Your task to perform on an android device: Open calendar and show me the second week of next month Image 0: 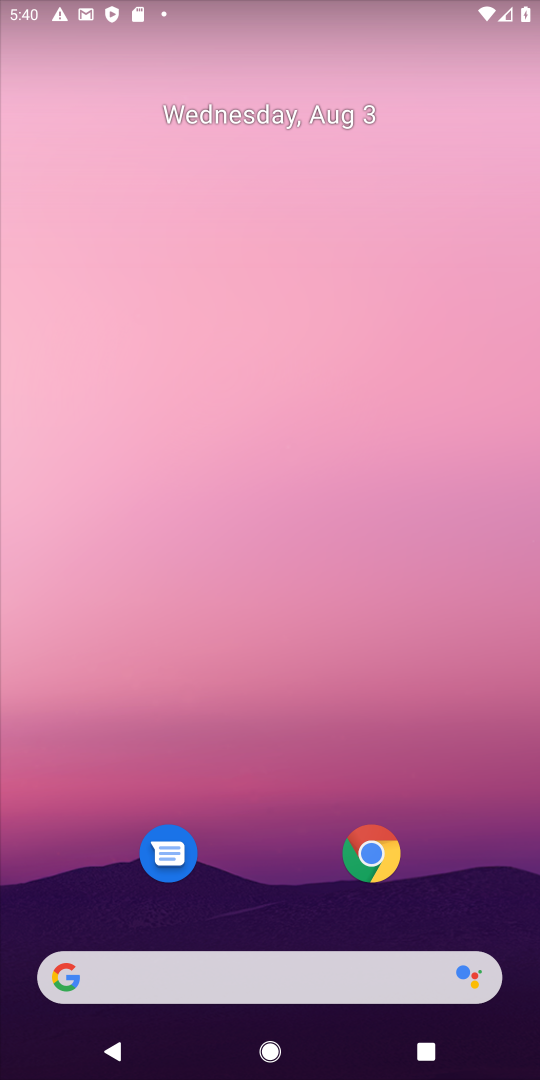
Step 0: drag from (290, 711) to (327, 49)
Your task to perform on an android device: Open calendar and show me the second week of next month Image 1: 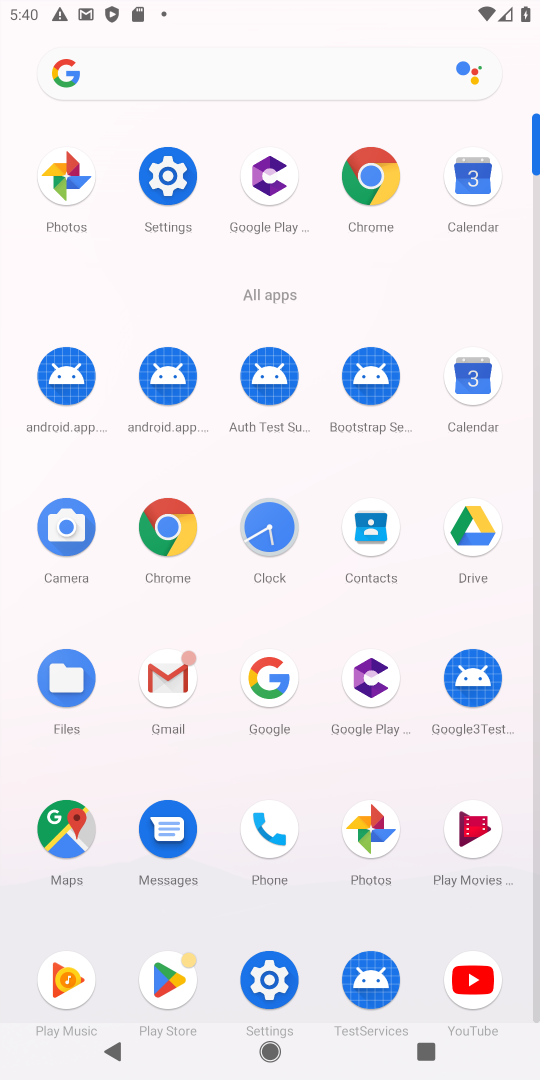
Step 1: click (463, 397)
Your task to perform on an android device: Open calendar and show me the second week of next month Image 2: 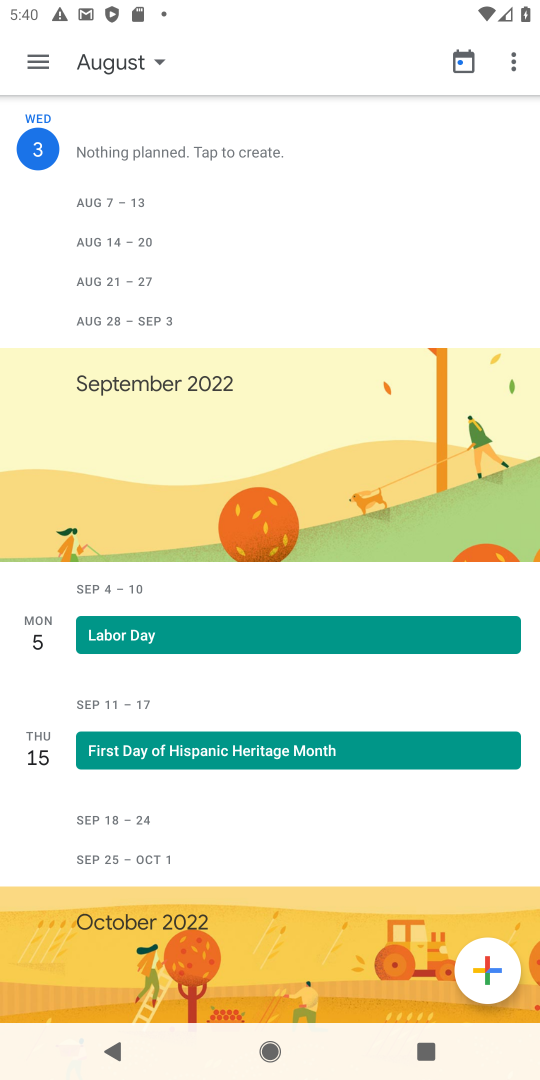
Step 2: click (34, 74)
Your task to perform on an android device: Open calendar and show me the second week of next month Image 3: 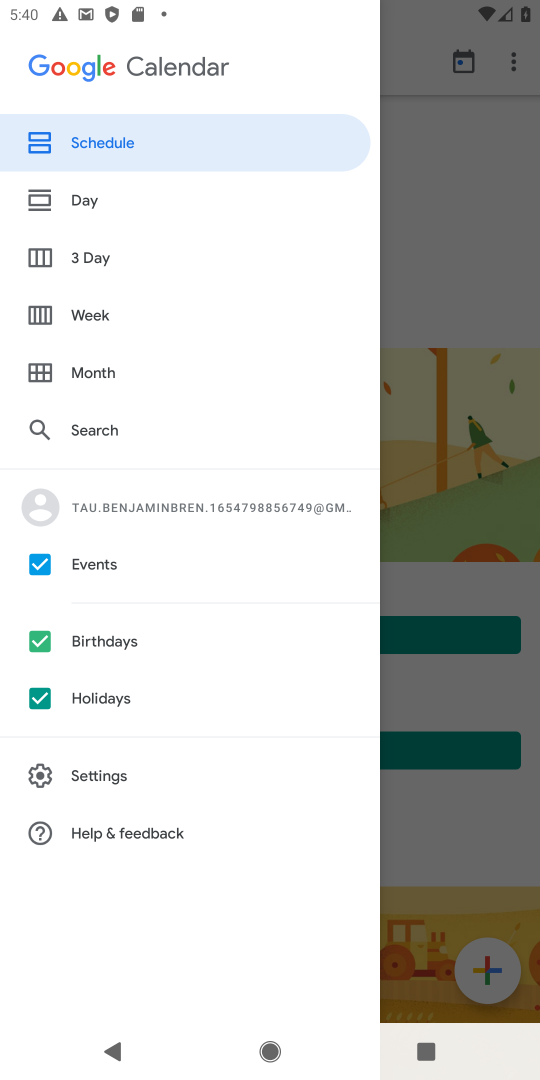
Step 3: click (73, 311)
Your task to perform on an android device: Open calendar and show me the second week of next month Image 4: 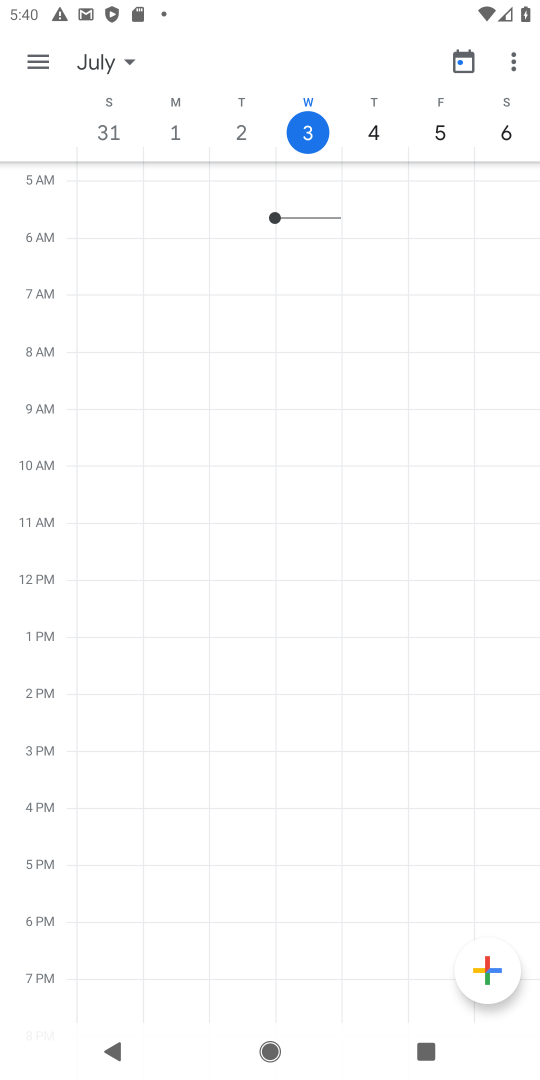
Step 4: click (111, 68)
Your task to perform on an android device: Open calendar and show me the second week of next month Image 5: 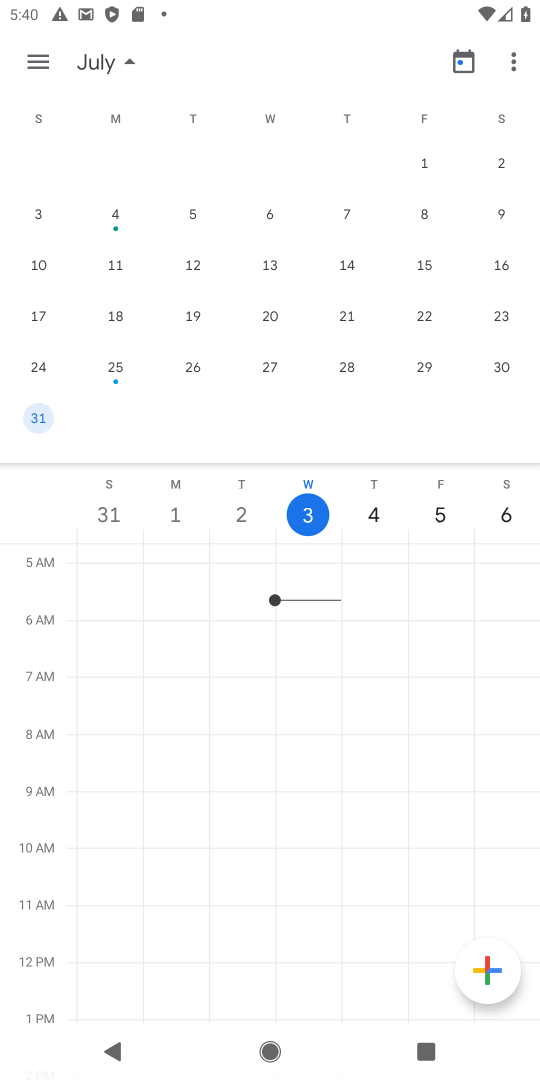
Step 5: drag from (437, 433) to (4, 409)
Your task to perform on an android device: Open calendar and show me the second week of next month Image 6: 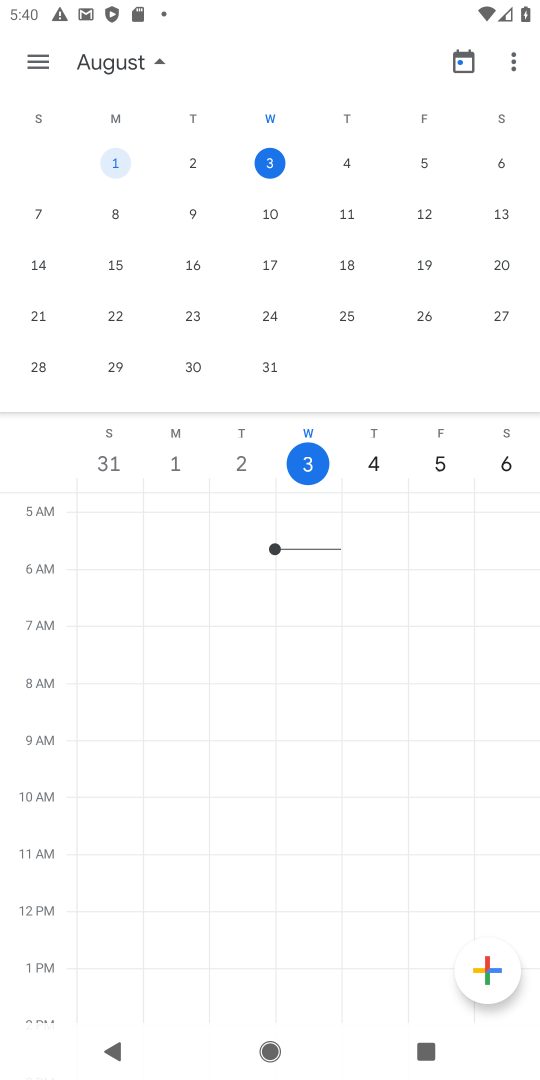
Step 6: drag from (470, 351) to (39, 477)
Your task to perform on an android device: Open calendar and show me the second week of next month Image 7: 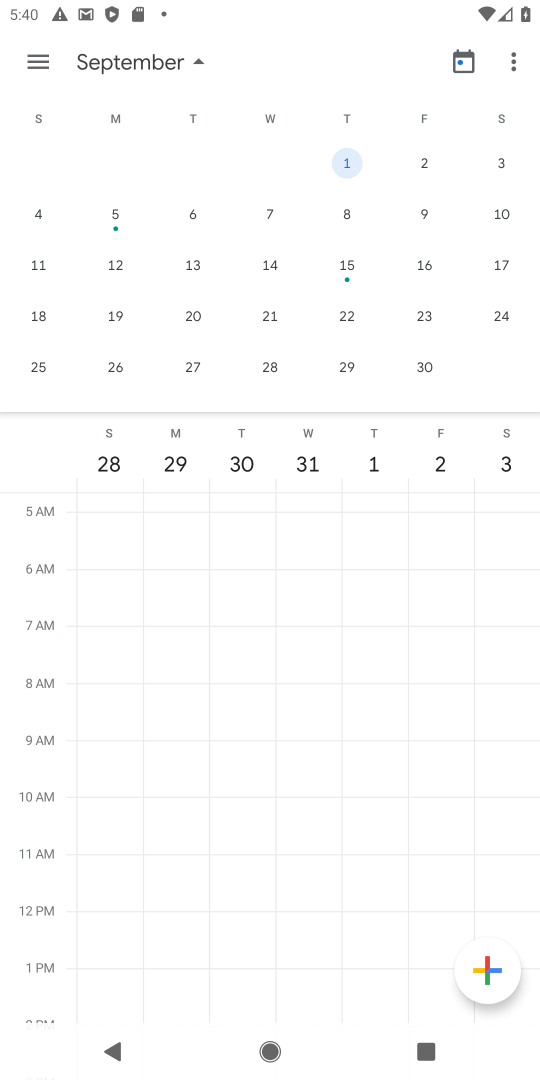
Step 7: click (264, 263)
Your task to perform on an android device: Open calendar and show me the second week of next month Image 8: 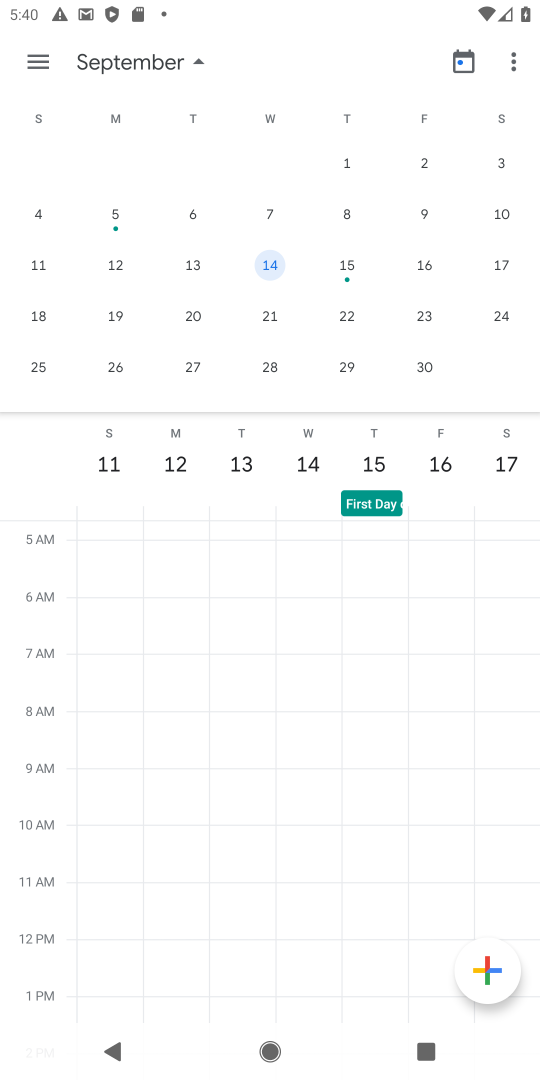
Step 8: task complete